Your task to perform on an android device: Open Google Chrome Image 0: 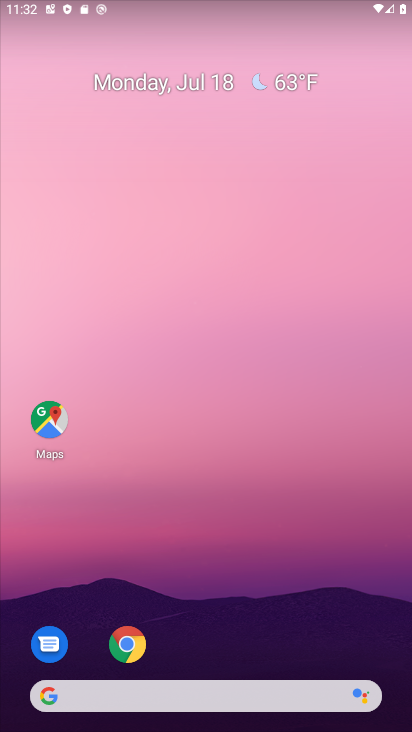
Step 0: click (127, 642)
Your task to perform on an android device: Open Google Chrome Image 1: 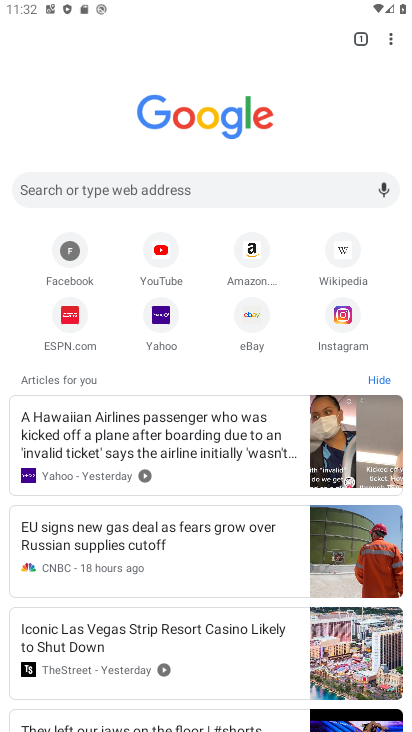
Step 1: task complete